Your task to perform on an android device: turn on translation in the chrome app Image 0: 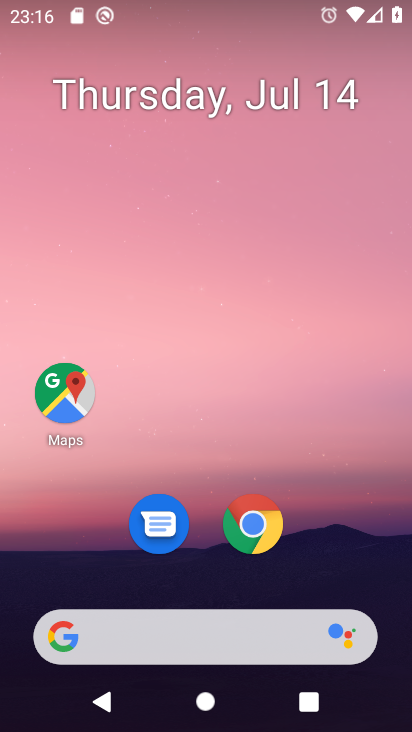
Step 0: click (262, 519)
Your task to perform on an android device: turn on translation in the chrome app Image 1: 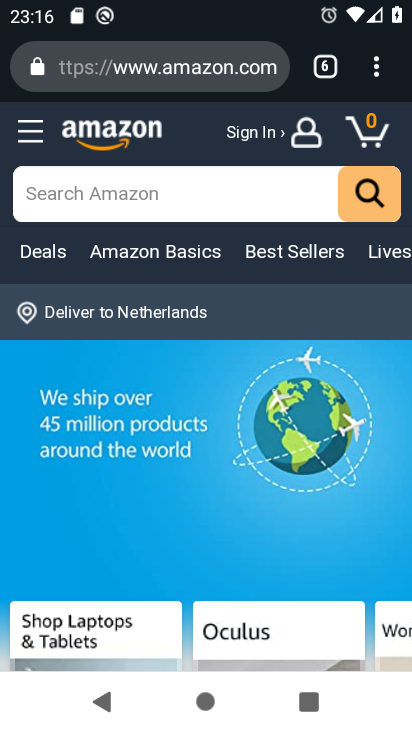
Step 1: click (376, 71)
Your task to perform on an android device: turn on translation in the chrome app Image 2: 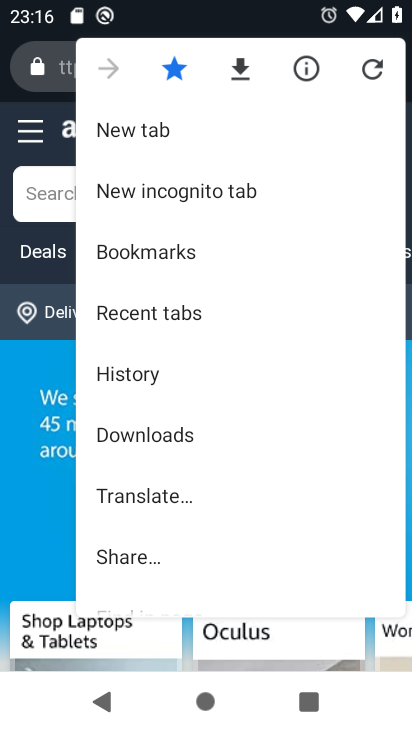
Step 2: drag from (224, 532) to (258, 77)
Your task to perform on an android device: turn on translation in the chrome app Image 3: 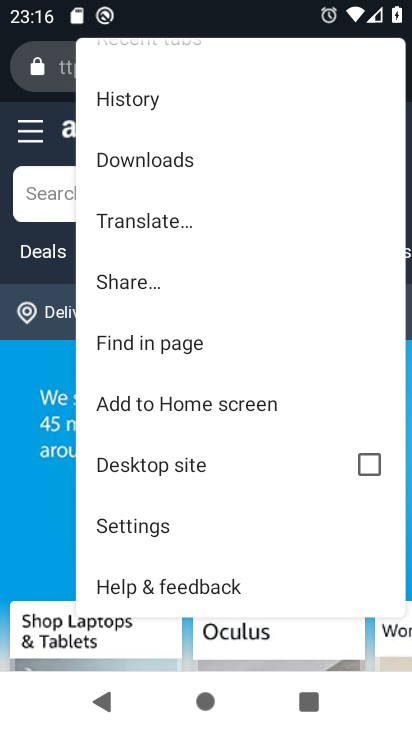
Step 3: click (162, 523)
Your task to perform on an android device: turn on translation in the chrome app Image 4: 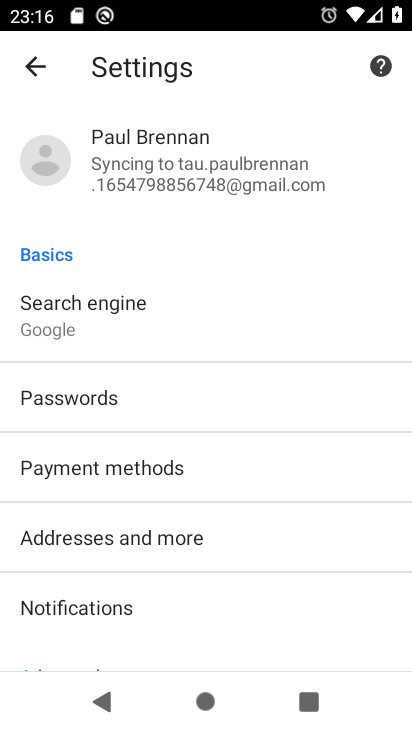
Step 4: drag from (224, 586) to (243, 192)
Your task to perform on an android device: turn on translation in the chrome app Image 5: 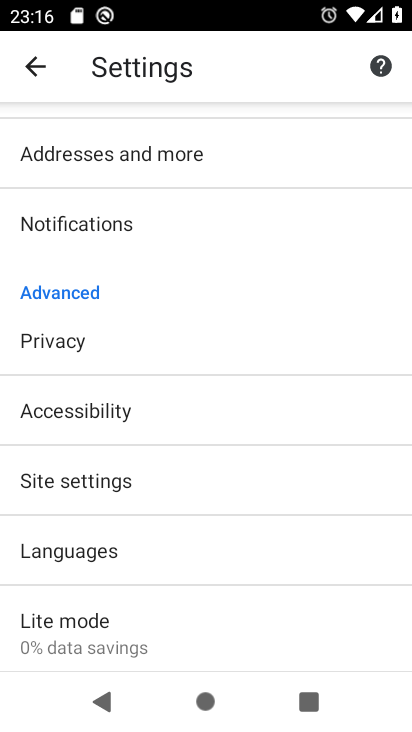
Step 5: click (182, 550)
Your task to perform on an android device: turn on translation in the chrome app Image 6: 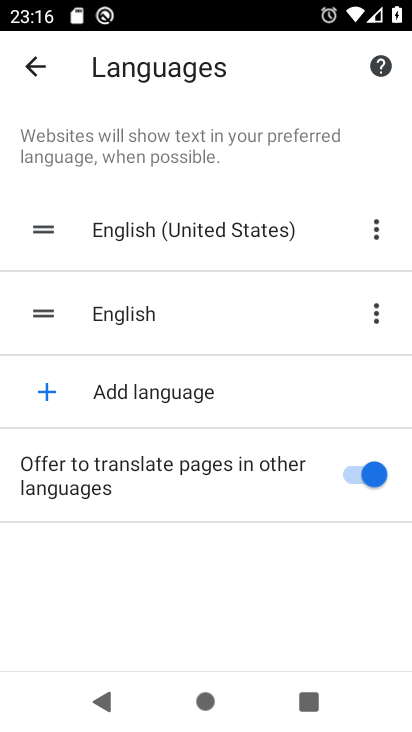
Step 6: task complete